Your task to perform on an android device: turn on notifications settings in the gmail app Image 0: 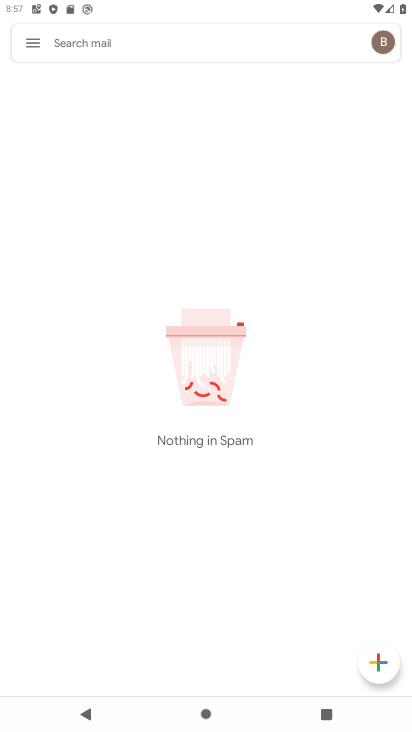
Step 0: press home button
Your task to perform on an android device: turn on notifications settings in the gmail app Image 1: 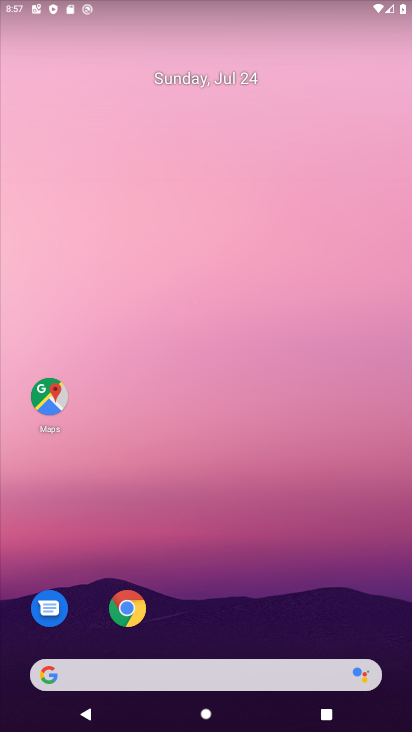
Step 1: drag from (275, 99) to (226, 2)
Your task to perform on an android device: turn on notifications settings in the gmail app Image 2: 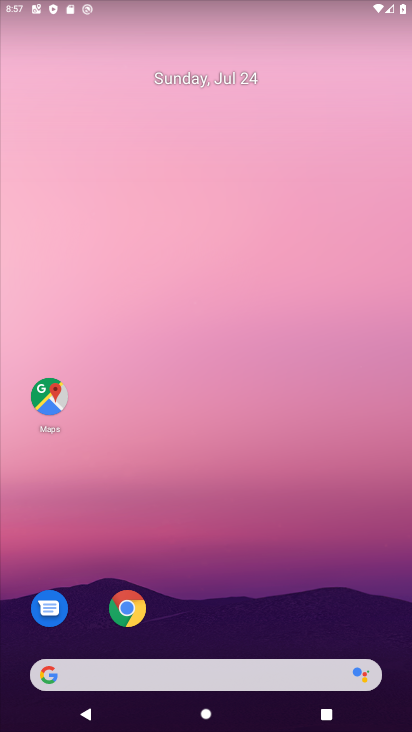
Step 2: drag from (199, 617) to (280, 0)
Your task to perform on an android device: turn on notifications settings in the gmail app Image 3: 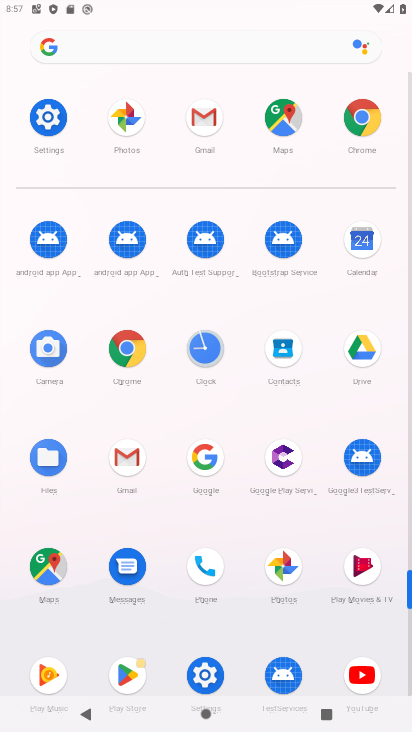
Step 3: click (131, 479)
Your task to perform on an android device: turn on notifications settings in the gmail app Image 4: 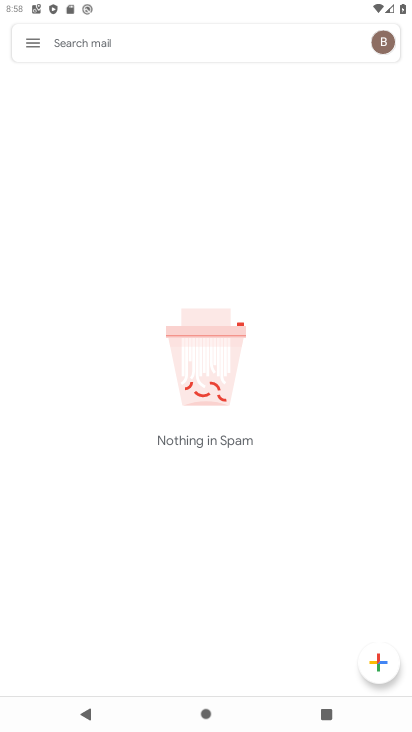
Step 4: click (26, 42)
Your task to perform on an android device: turn on notifications settings in the gmail app Image 5: 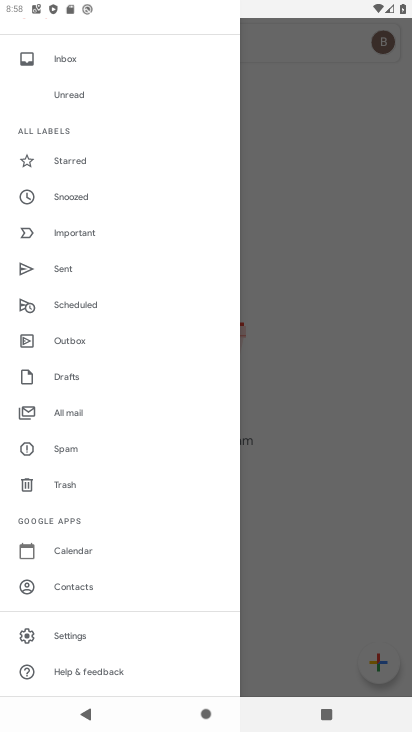
Step 5: click (82, 639)
Your task to perform on an android device: turn on notifications settings in the gmail app Image 6: 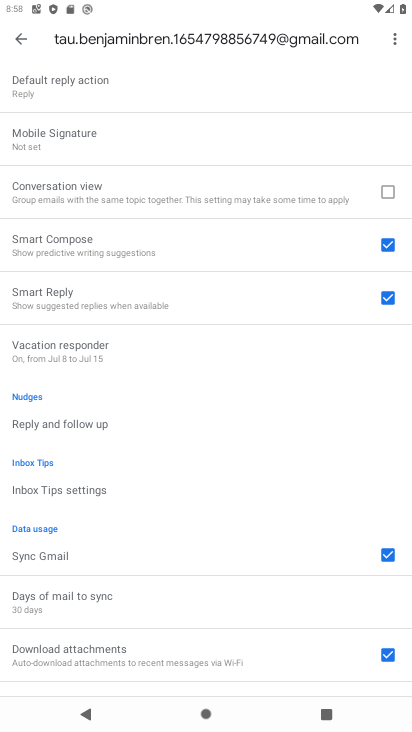
Step 6: click (20, 39)
Your task to perform on an android device: turn on notifications settings in the gmail app Image 7: 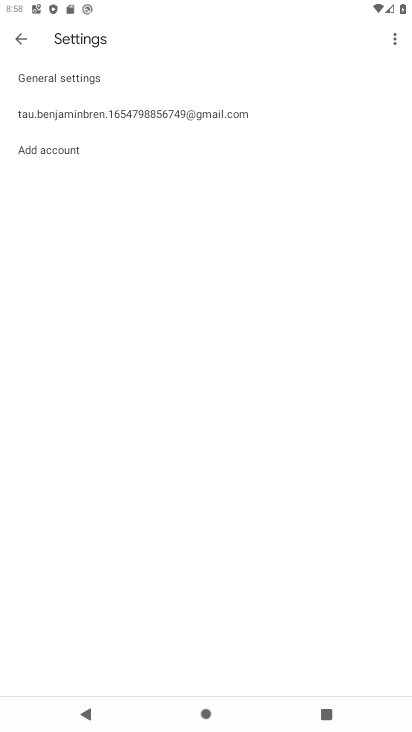
Step 7: click (81, 81)
Your task to perform on an android device: turn on notifications settings in the gmail app Image 8: 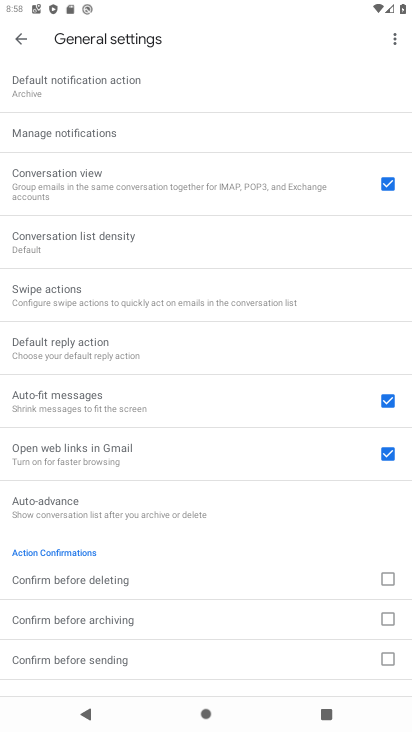
Step 8: click (71, 140)
Your task to perform on an android device: turn on notifications settings in the gmail app Image 9: 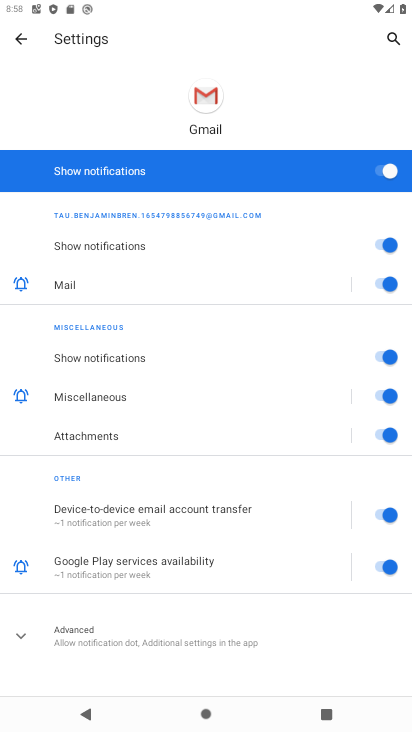
Step 9: task complete